Your task to perform on an android device: Go to Maps Image 0: 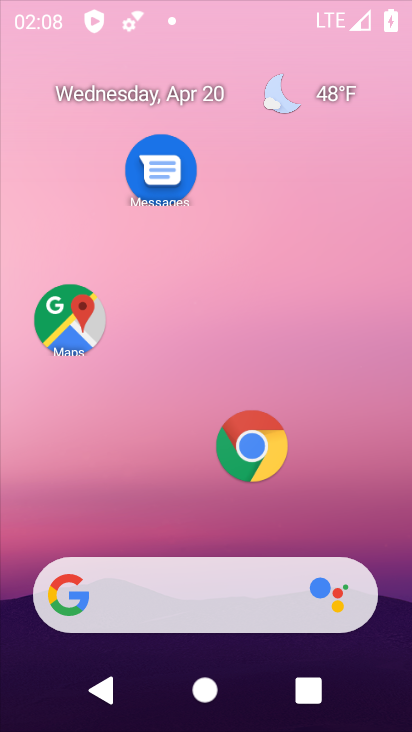
Step 0: click (224, 62)
Your task to perform on an android device: Go to Maps Image 1: 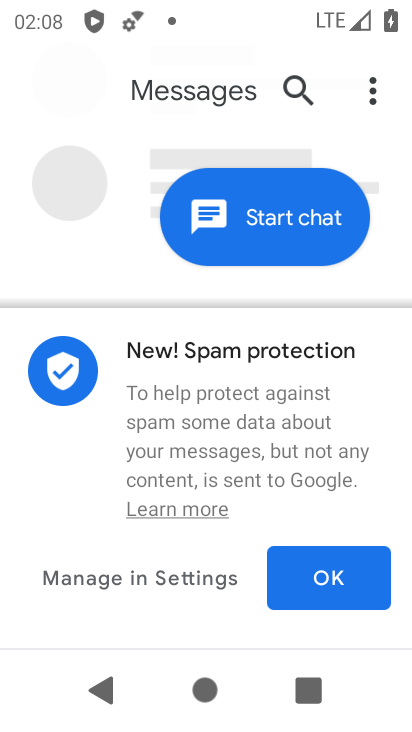
Step 1: press home button
Your task to perform on an android device: Go to Maps Image 2: 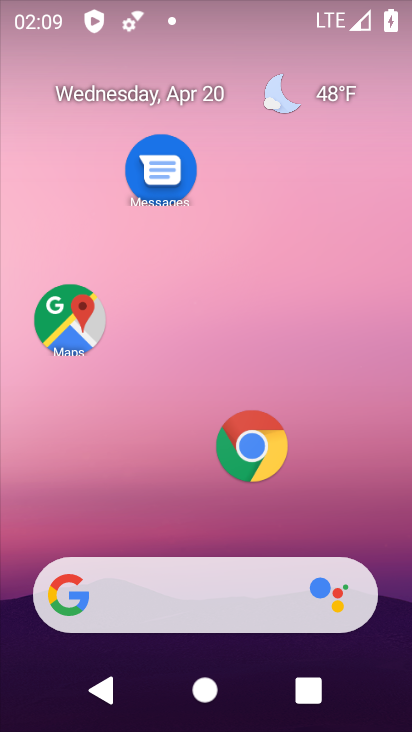
Step 2: click (65, 311)
Your task to perform on an android device: Go to Maps Image 3: 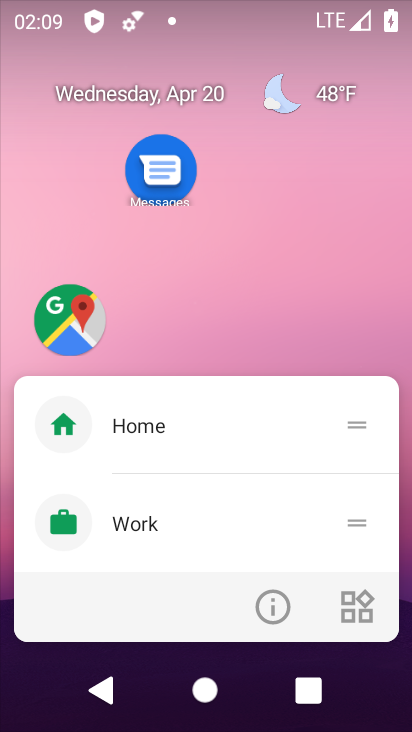
Step 3: click (73, 323)
Your task to perform on an android device: Go to Maps Image 4: 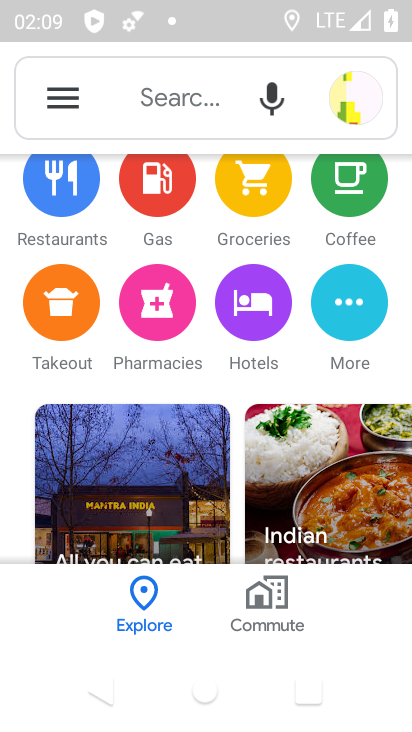
Step 4: drag from (210, 238) to (187, 585)
Your task to perform on an android device: Go to Maps Image 5: 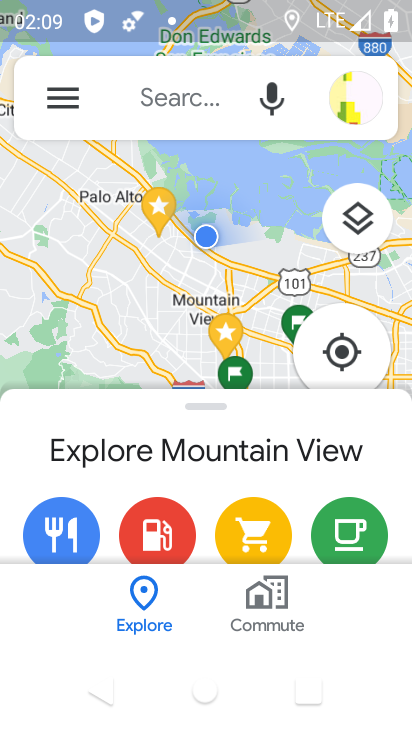
Step 5: drag from (183, 254) to (154, 602)
Your task to perform on an android device: Go to Maps Image 6: 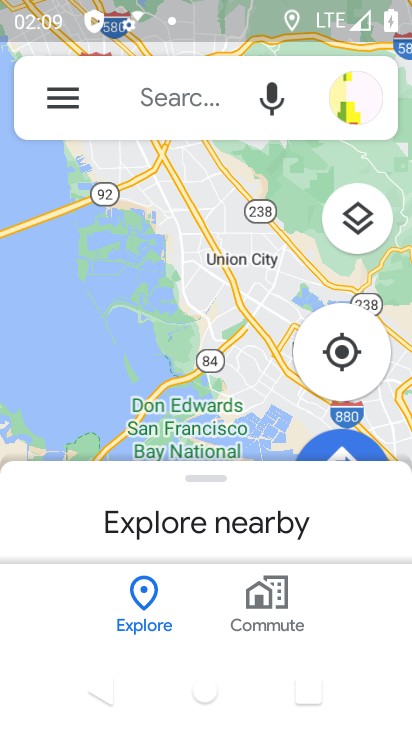
Step 6: click (52, 96)
Your task to perform on an android device: Go to Maps Image 7: 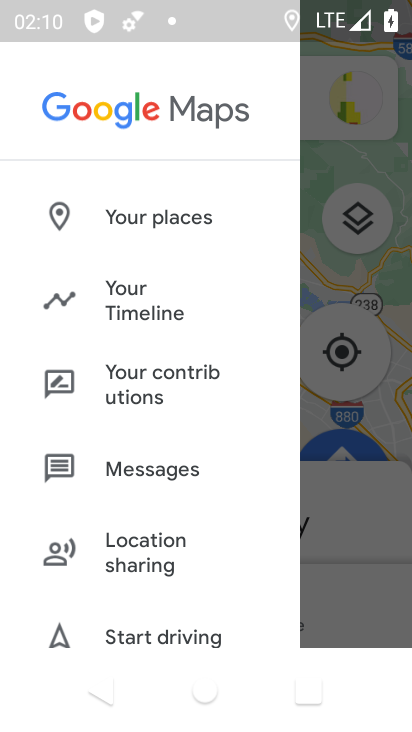
Step 7: task complete